Your task to perform on an android device: turn off location Image 0: 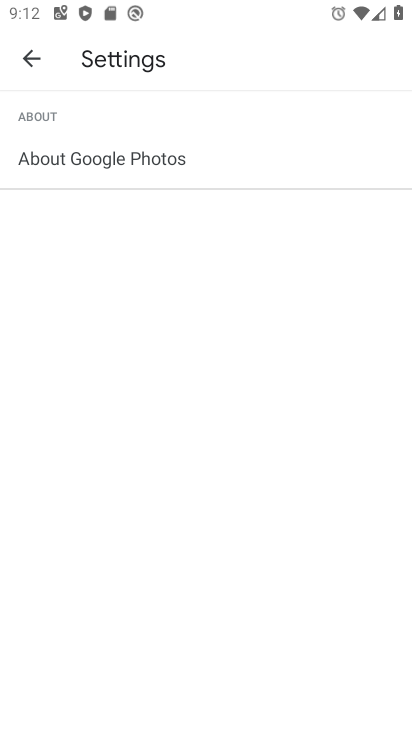
Step 0: press home button
Your task to perform on an android device: turn off location Image 1: 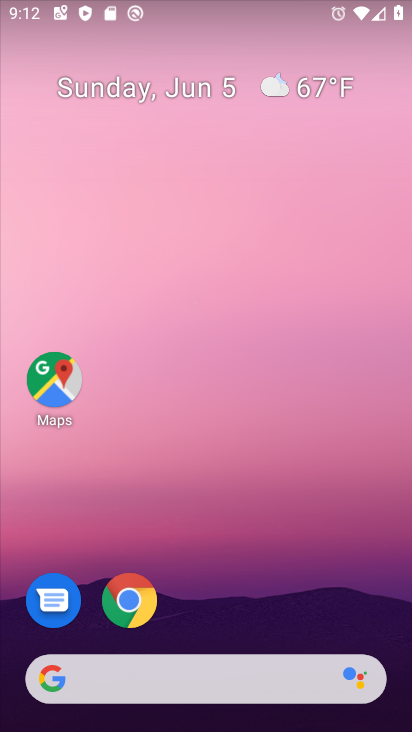
Step 1: click (404, 649)
Your task to perform on an android device: turn off location Image 2: 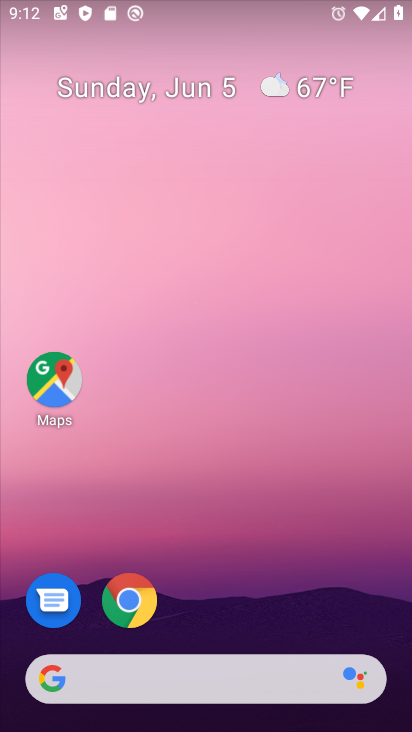
Step 2: drag from (362, 124) to (331, 45)
Your task to perform on an android device: turn off location Image 3: 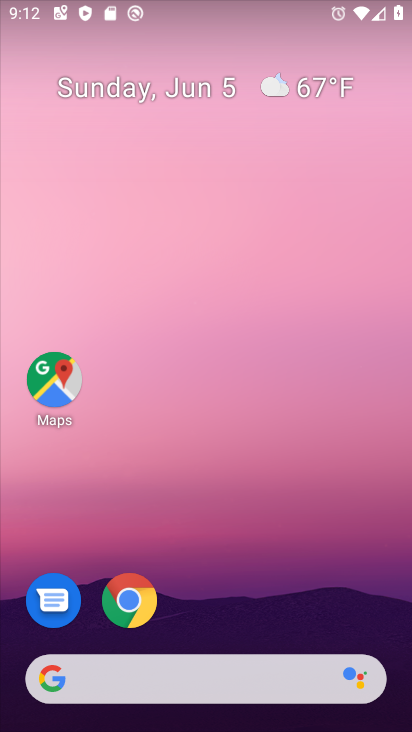
Step 3: drag from (382, 644) to (303, 18)
Your task to perform on an android device: turn off location Image 4: 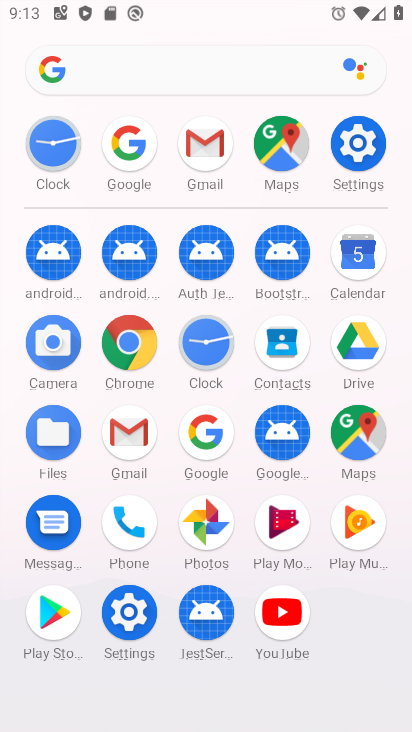
Step 4: click (105, 608)
Your task to perform on an android device: turn off location Image 5: 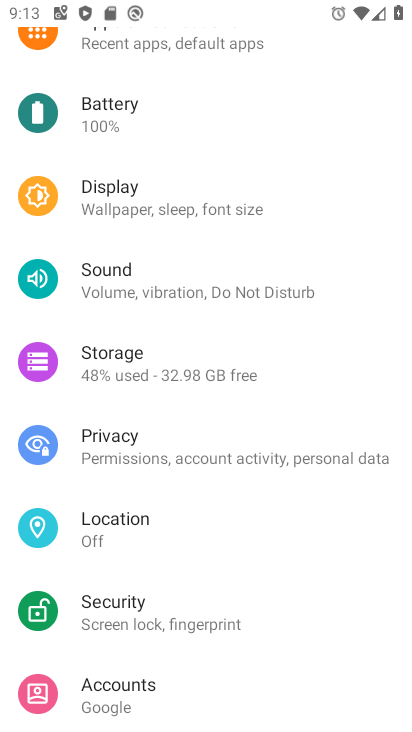
Step 5: click (126, 529)
Your task to perform on an android device: turn off location Image 6: 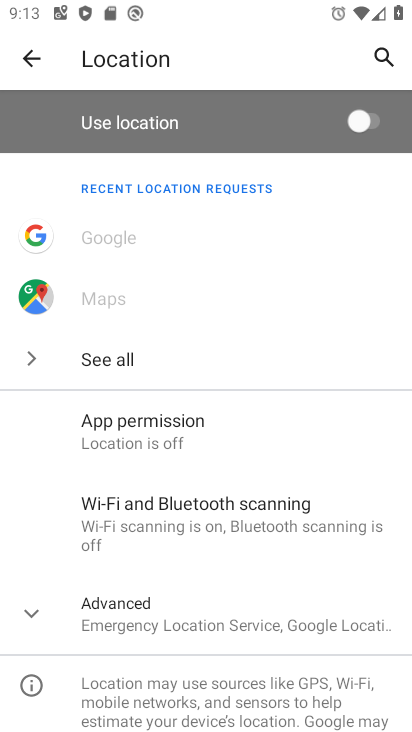
Step 6: task complete